Your task to perform on an android device: see sites visited before in the chrome app Image 0: 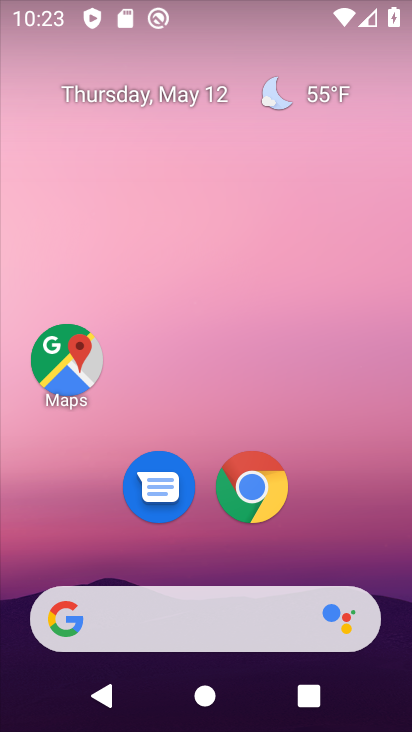
Step 0: click (243, 497)
Your task to perform on an android device: see sites visited before in the chrome app Image 1: 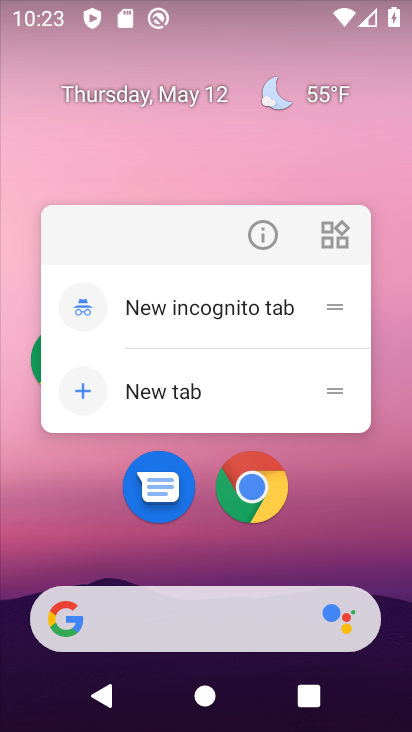
Step 1: click (259, 501)
Your task to perform on an android device: see sites visited before in the chrome app Image 2: 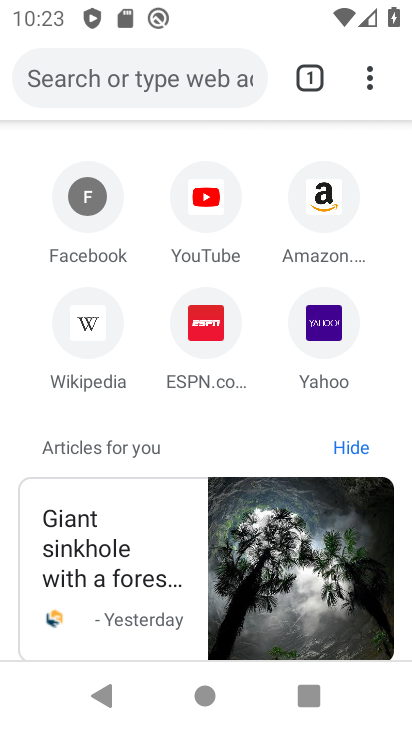
Step 2: task complete